Your task to perform on an android device: Go to sound settings Image 0: 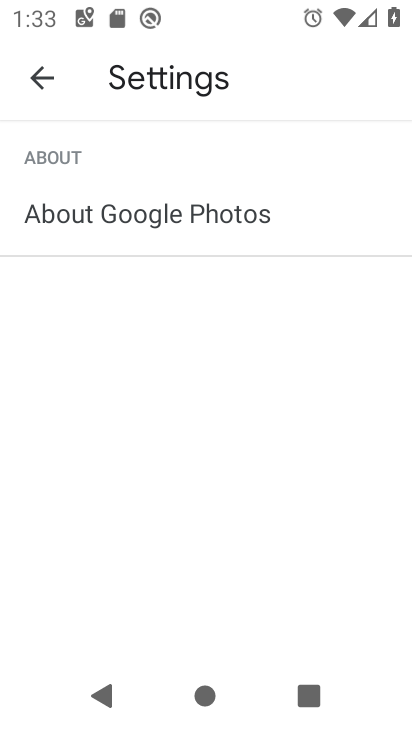
Step 0: press home button
Your task to perform on an android device: Go to sound settings Image 1: 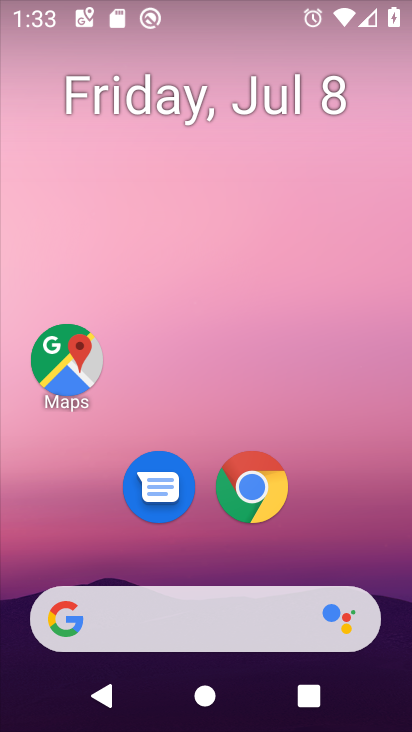
Step 1: drag from (383, 545) to (404, 209)
Your task to perform on an android device: Go to sound settings Image 2: 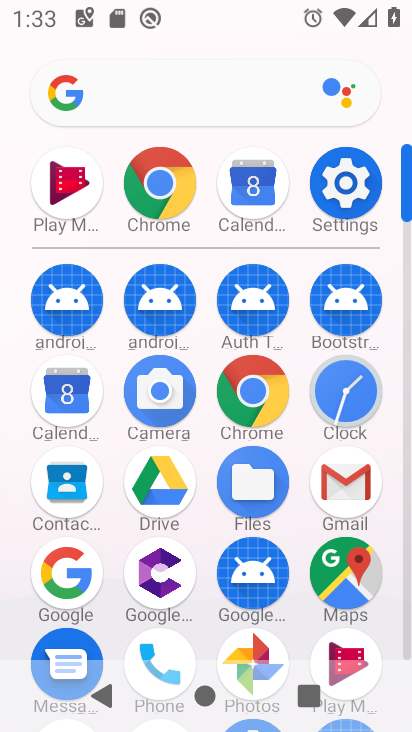
Step 2: click (357, 194)
Your task to perform on an android device: Go to sound settings Image 3: 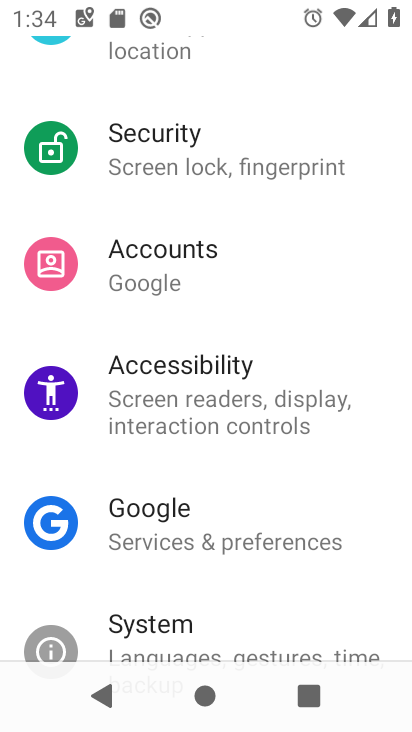
Step 3: drag from (364, 249) to (367, 312)
Your task to perform on an android device: Go to sound settings Image 4: 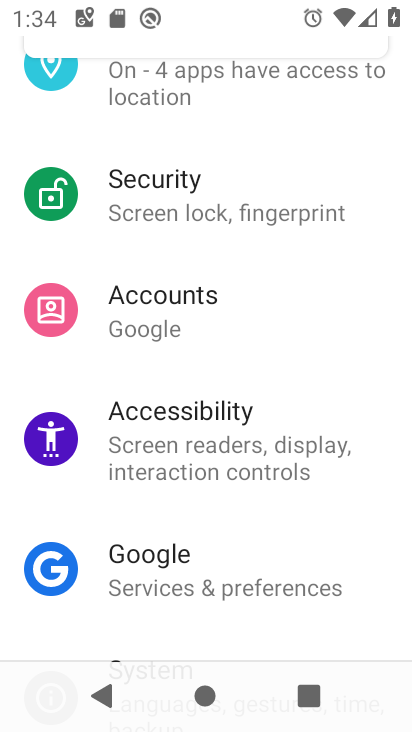
Step 4: drag from (359, 253) to (369, 346)
Your task to perform on an android device: Go to sound settings Image 5: 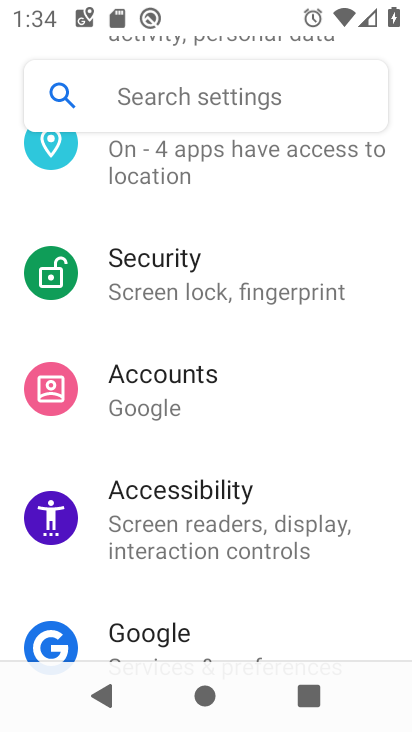
Step 5: drag from (358, 247) to (355, 338)
Your task to perform on an android device: Go to sound settings Image 6: 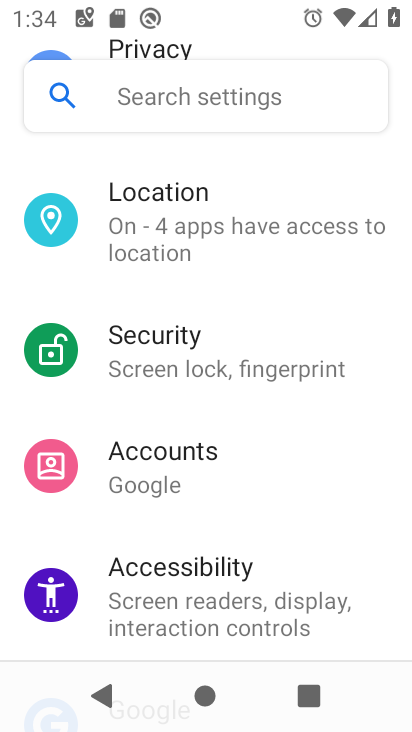
Step 6: drag from (363, 274) to (367, 368)
Your task to perform on an android device: Go to sound settings Image 7: 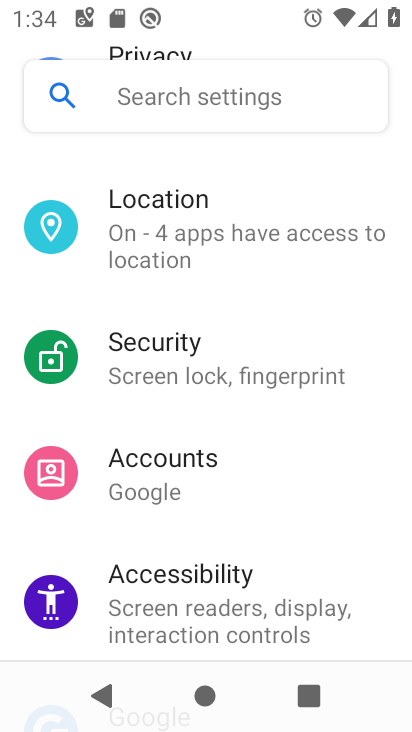
Step 7: click (362, 391)
Your task to perform on an android device: Go to sound settings Image 8: 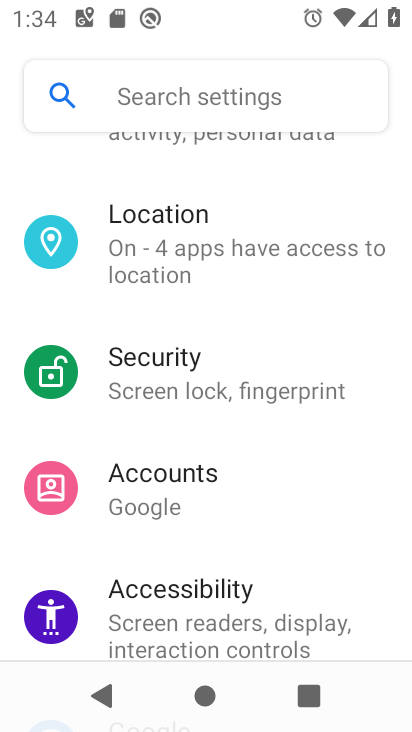
Step 8: drag from (385, 320) to (383, 435)
Your task to perform on an android device: Go to sound settings Image 9: 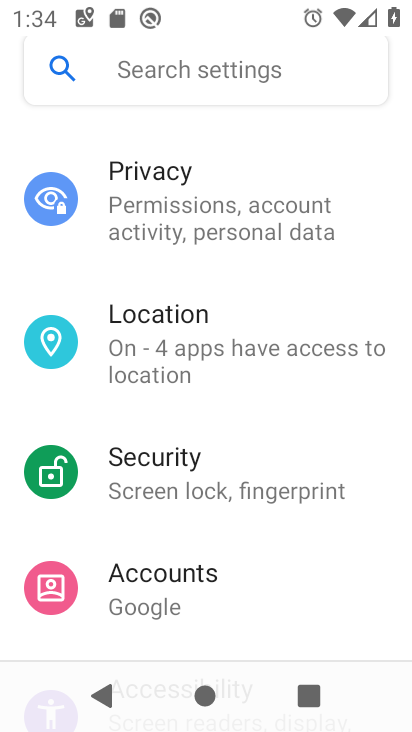
Step 9: drag from (373, 287) to (352, 413)
Your task to perform on an android device: Go to sound settings Image 10: 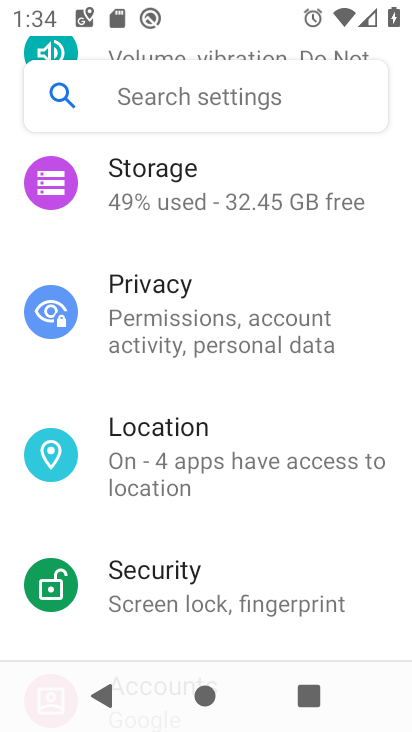
Step 10: drag from (339, 294) to (319, 416)
Your task to perform on an android device: Go to sound settings Image 11: 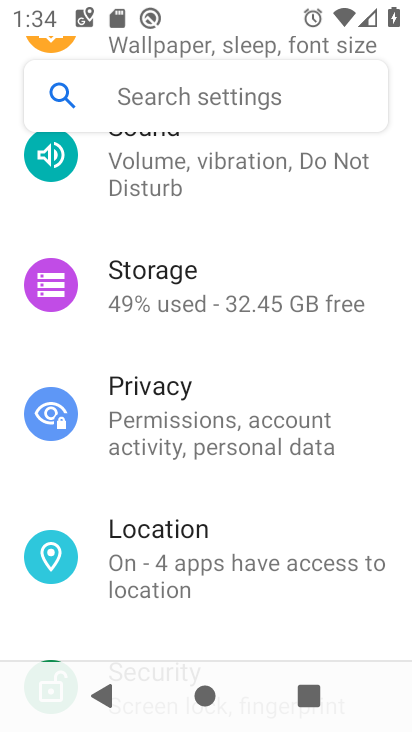
Step 11: drag from (360, 257) to (365, 400)
Your task to perform on an android device: Go to sound settings Image 12: 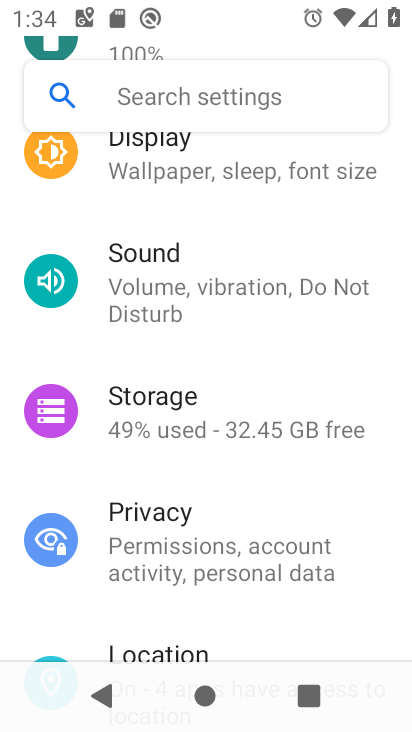
Step 12: drag from (362, 297) to (365, 434)
Your task to perform on an android device: Go to sound settings Image 13: 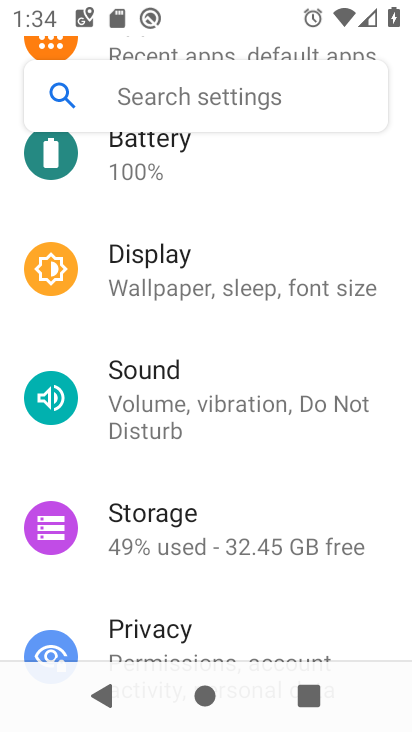
Step 13: drag from (363, 241) to (362, 364)
Your task to perform on an android device: Go to sound settings Image 14: 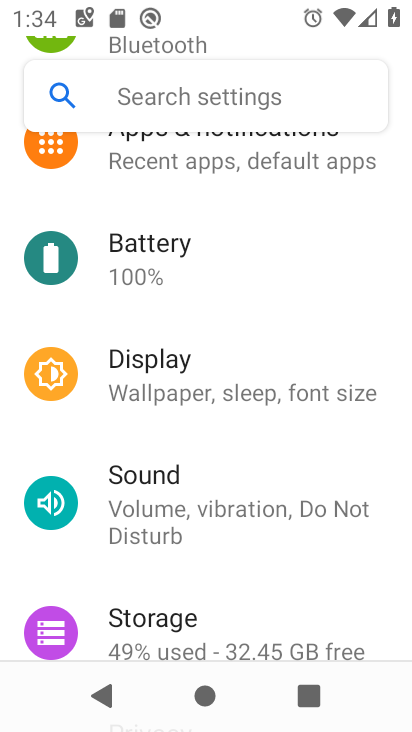
Step 14: click (354, 491)
Your task to perform on an android device: Go to sound settings Image 15: 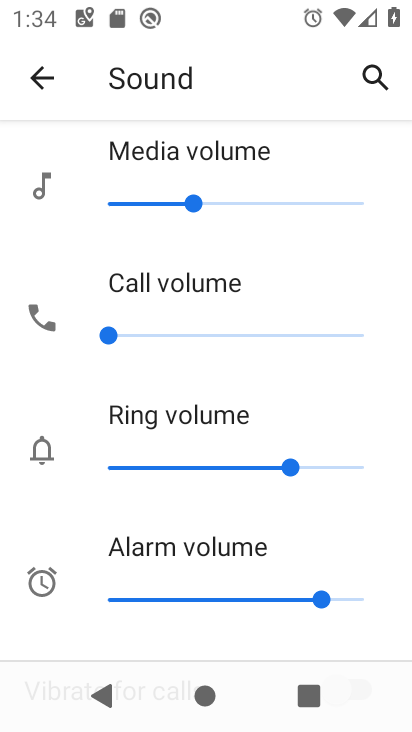
Step 15: task complete